Your task to perform on an android device: Open Google Image 0: 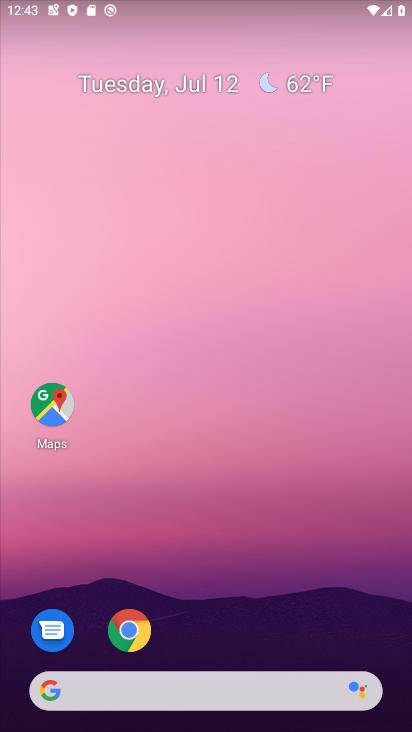
Step 0: click (52, 686)
Your task to perform on an android device: Open Google Image 1: 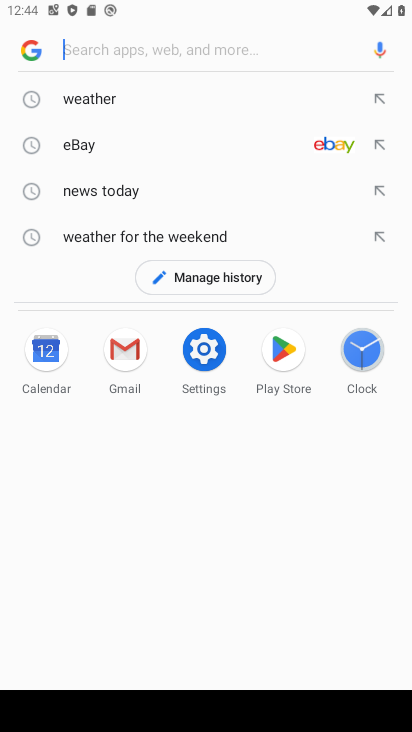
Step 1: click (38, 46)
Your task to perform on an android device: Open Google Image 2: 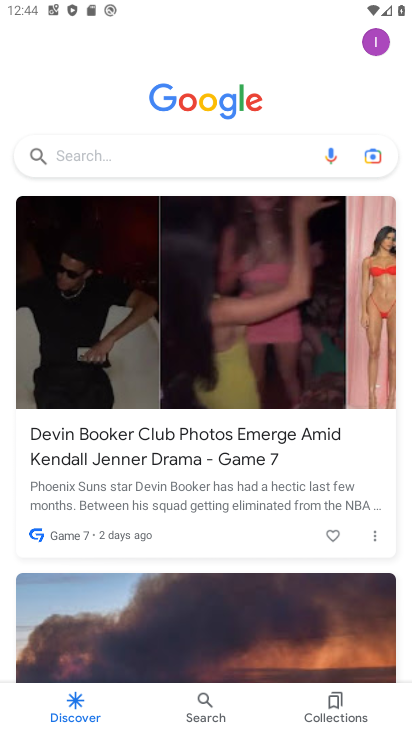
Step 2: task complete